Your task to perform on an android device: turn on location history Image 0: 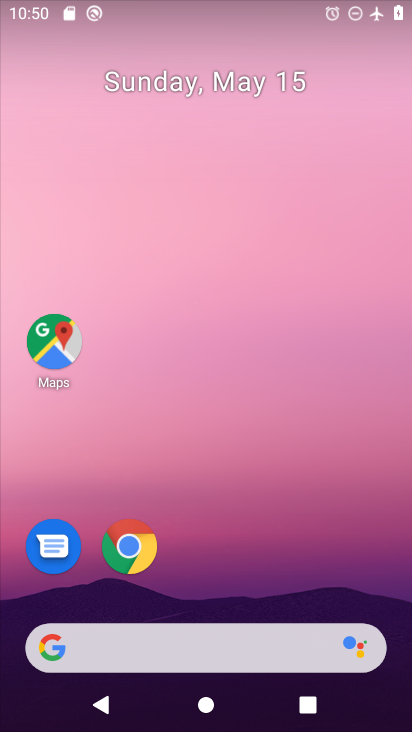
Step 0: drag from (274, 552) to (283, 101)
Your task to perform on an android device: turn on location history Image 1: 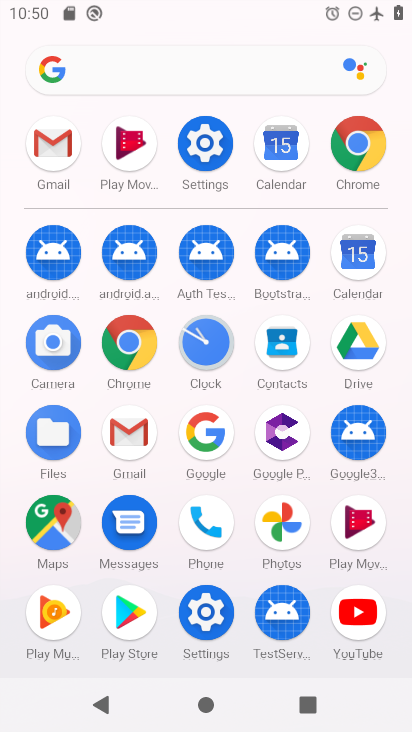
Step 1: click (214, 137)
Your task to perform on an android device: turn on location history Image 2: 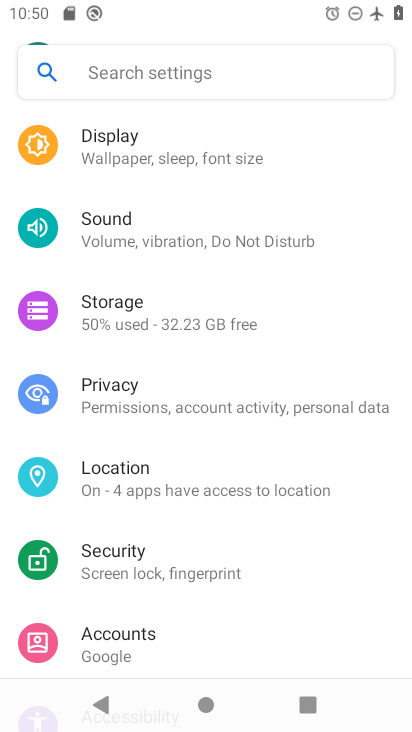
Step 2: drag from (220, 518) to (287, 293)
Your task to perform on an android device: turn on location history Image 3: 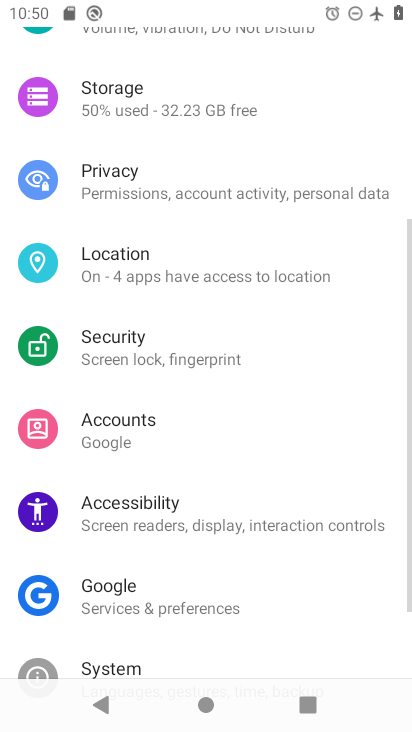
Step 3: click (199, 282)
Your task to perform on an android device: turn on location history Image 4: 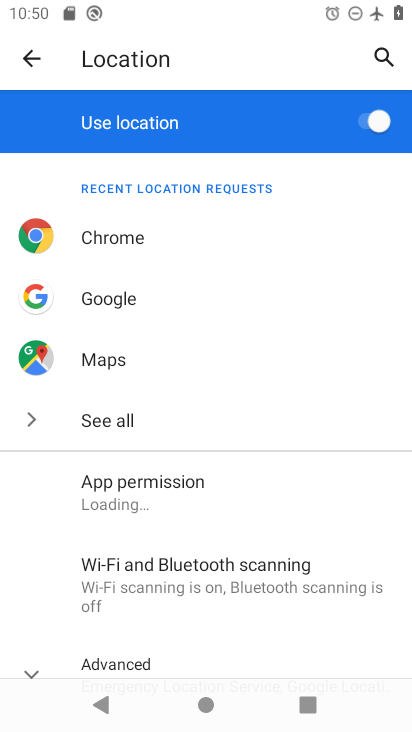
Step 4: drag from (270, 565) to (333, 172)
Your task to perform on an android device: turn on location history Image 5: 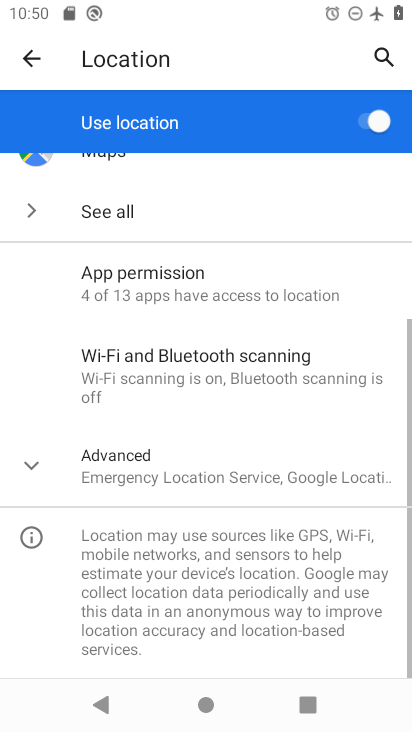
Step 5: click (171, 457)
Your task to perform on an android device: turn on location history Image 6: 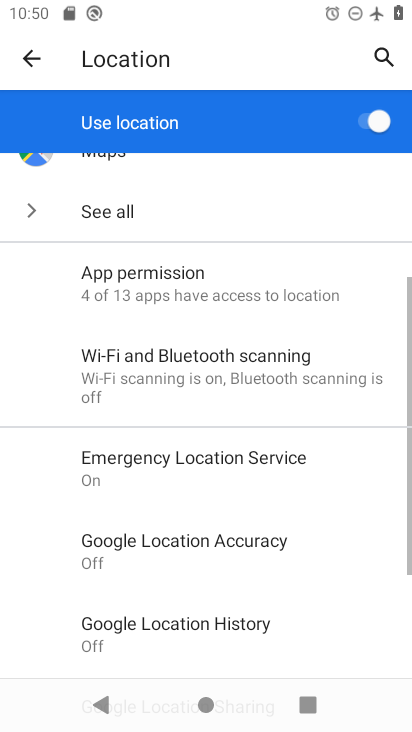
Step 6: drag from (283, 604) to (365, 300)
Your task to perform on an android device: turn on location history Image 7: 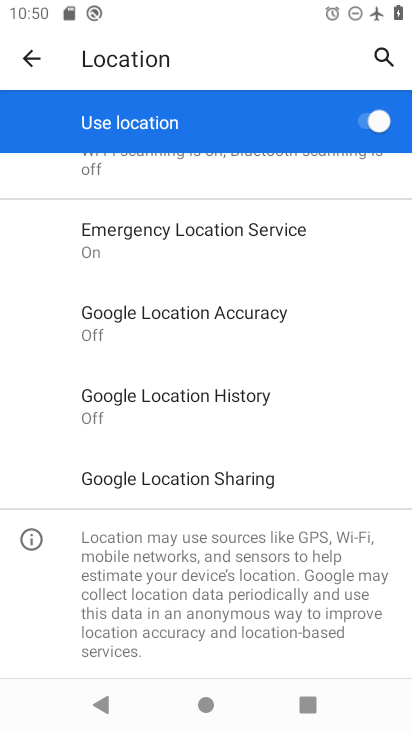
Step 7: click (208, 411)
Your task to perform on an android device: turn on location history Image 8: 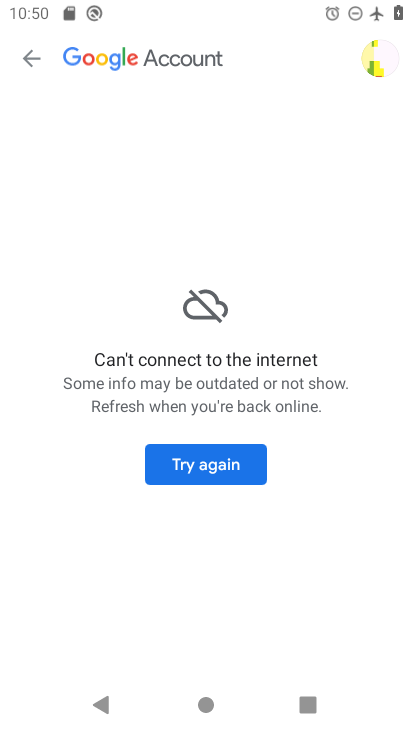
Step 8: task complete